Your task to perform on an android device: clear all cookies in the chrome app Image 0: 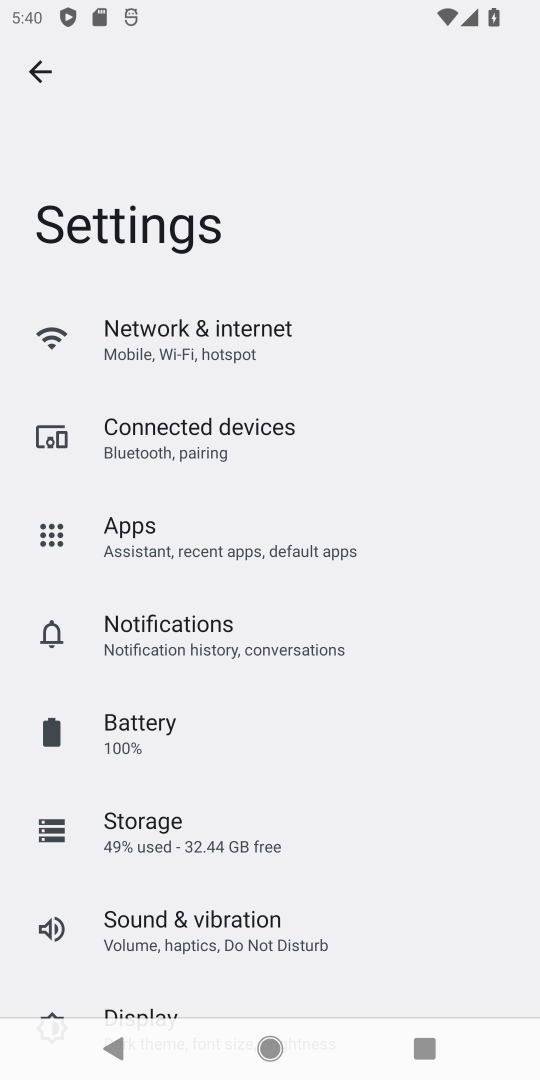
Step 0: task complete